Your task to perform on an android device: check android version Image 0: 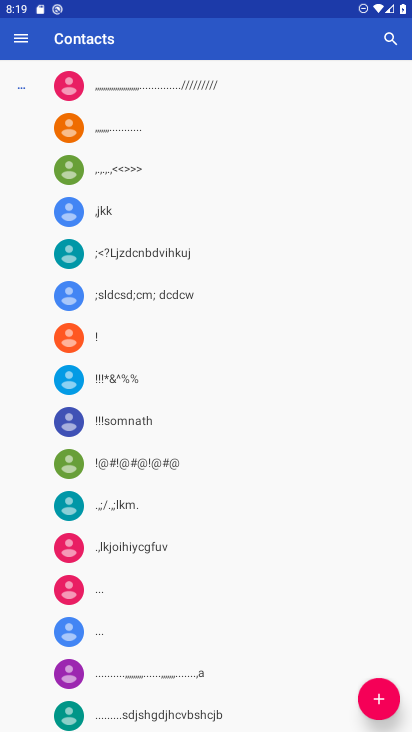
Step 0: press home button
Your task to perform on an android device: check android version Image 1: 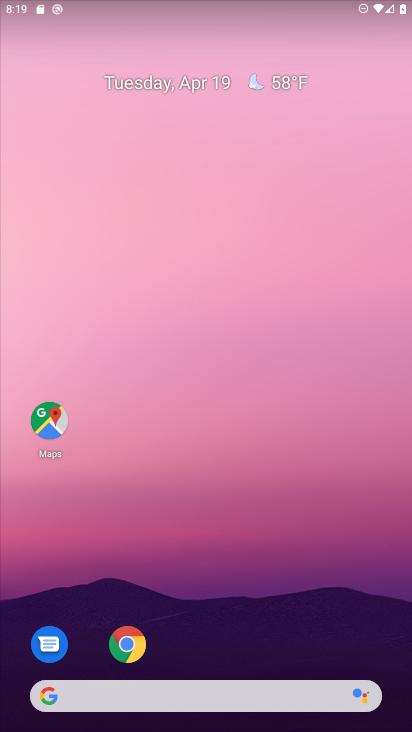
Step 1: drag from (206, 639) to (248, 230)
Your task to perform on an android device: check android version Image 2: 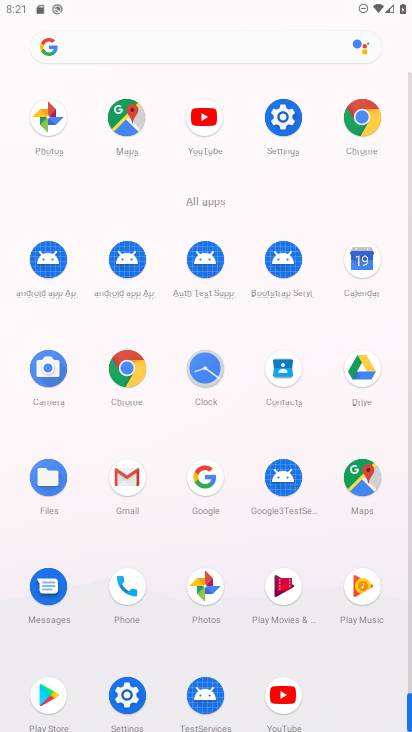
Step 2: click (274, 106)
Your task to perform on an android device: check android version Image 3: 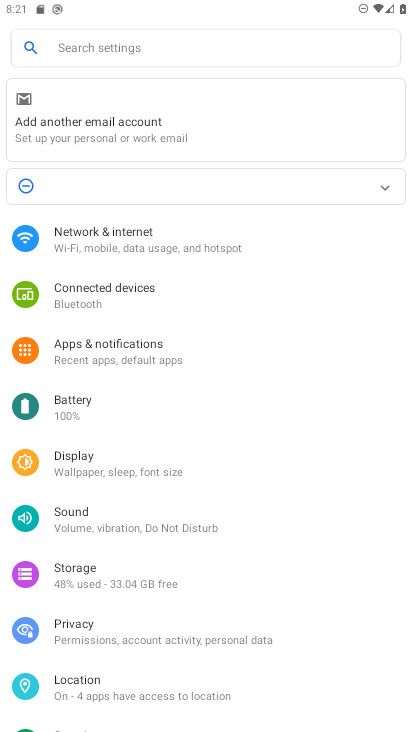
Step 3: drag from (144, 557) to (183, 280)
Your task to perform on an android device: check android version Image 4: 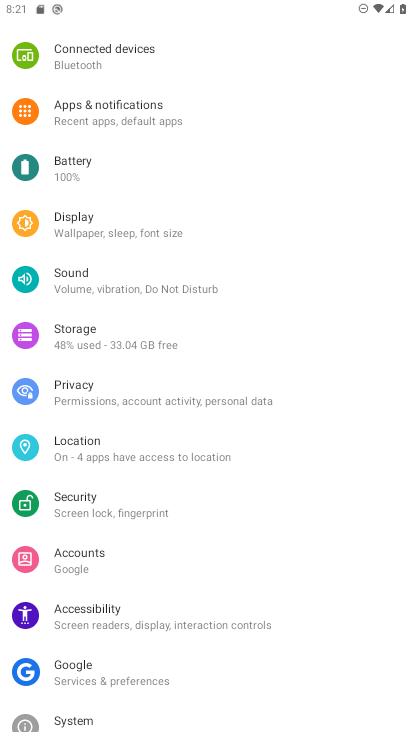
Step 4: drag from (140, 646) to (254, 182)
Your task to perform on an android device: check android version Image 5: 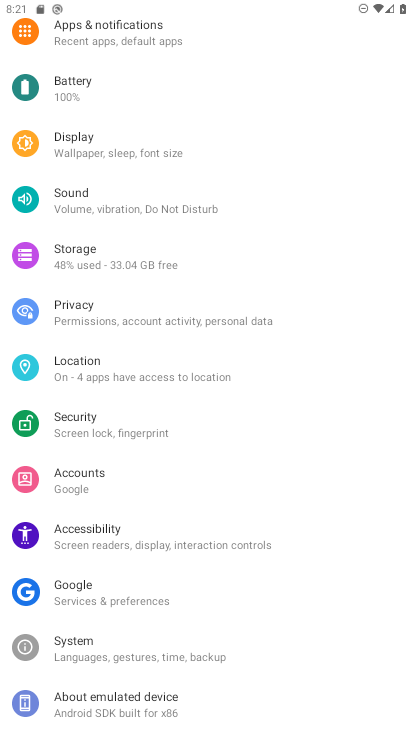
Step 5: click (143, 712)
Your task to perform on an android device: check android version Image 6: 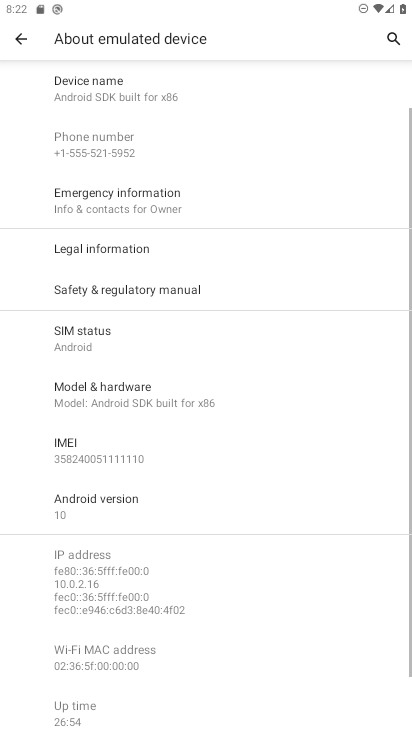
Step 6: drag from (109, 575) to (188, 235)
Your task to perform on an android device: check android version Image 7: 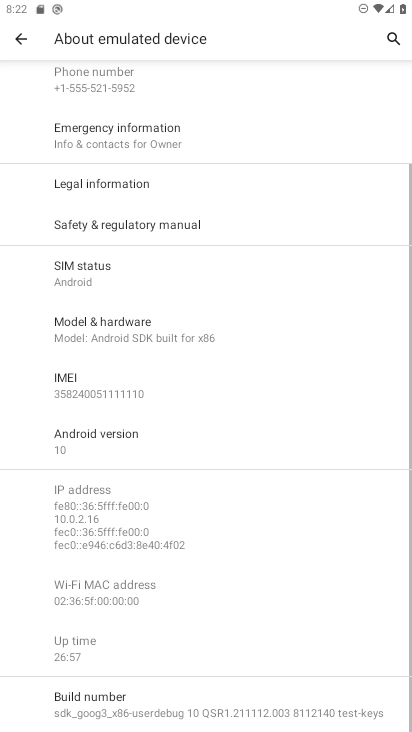
Step 7: click (142, 707)
Your task to perform on an android device: check android version Image 8: 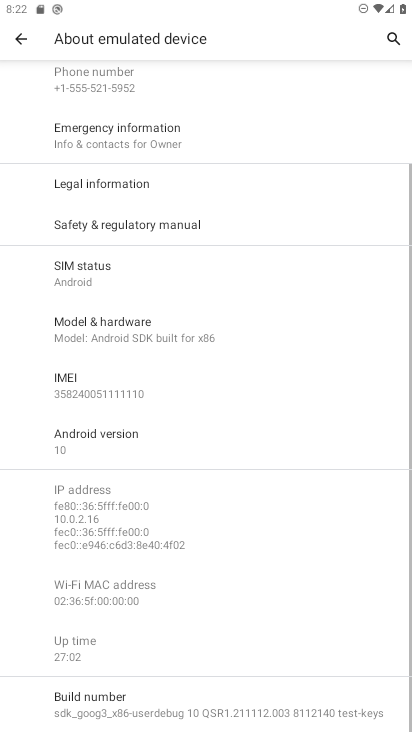
Step 8: click (104, 439)
Your task to perform on an android device: check android version Image 9: 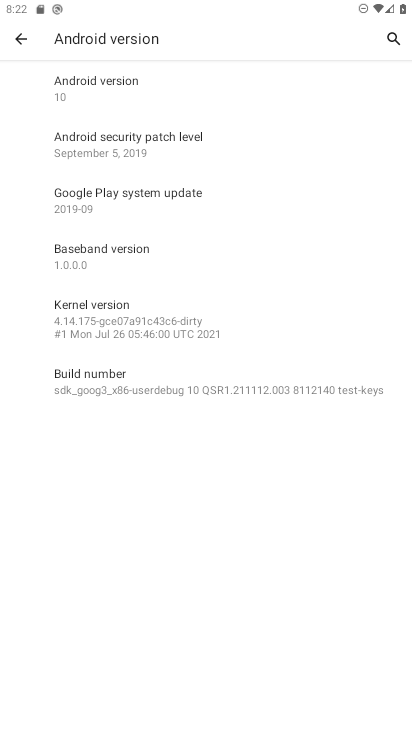
Step 9: task complete